Your task to perform on an android device: Go to calendar. Show me events next week Image 0: 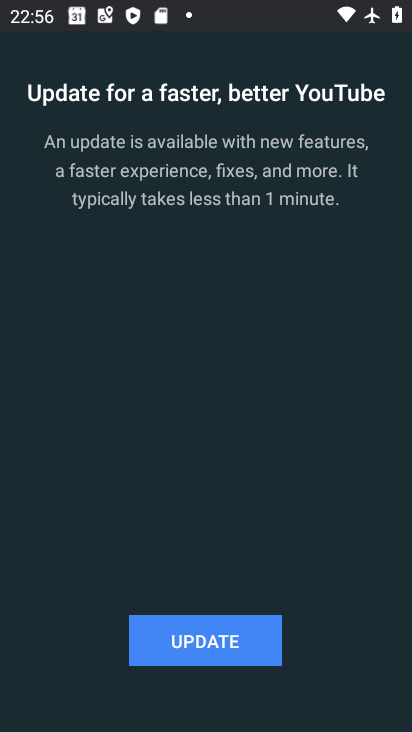
Step 0: press home button
Your task to perform on an android device: Go to calendar. Show me events next week Image 1: 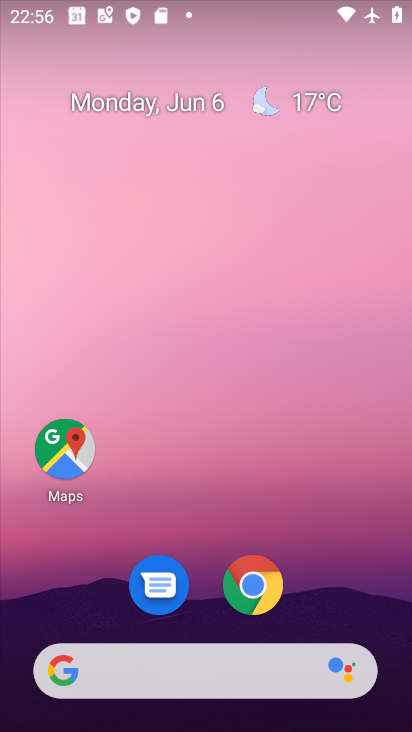
Step 1: drag from (198, 493) to (244, 22)
Your task to perform on an android device: Go to calendar. Show me events next week Image 2: 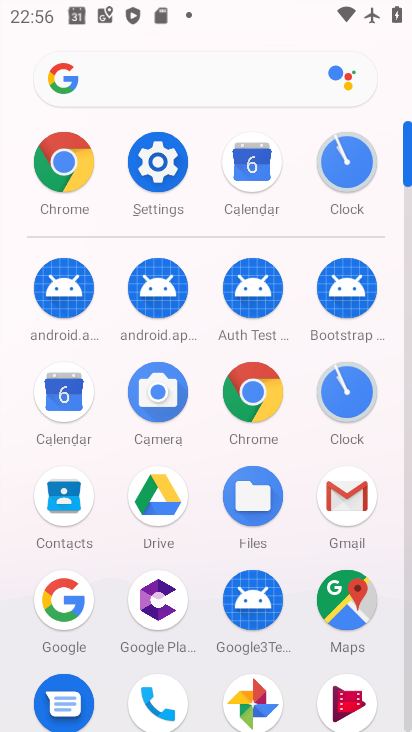
Step 2: click (249, 158)
Your task to perform on an android device: Go to calendar. Show me events next week Image 3: 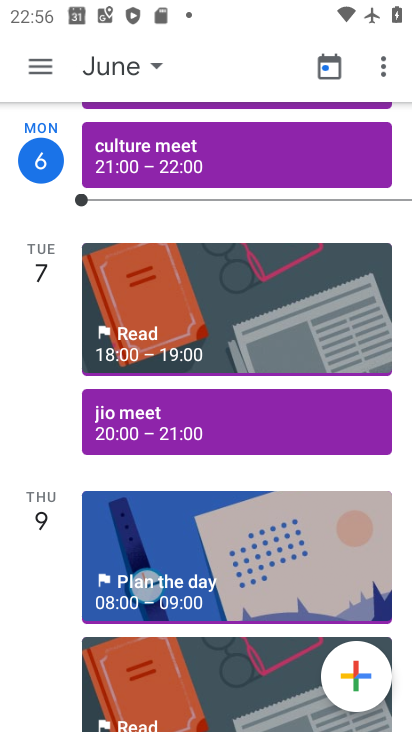
Step 3: click (43, 60)
Your task to perform on an android device: Go to calendar. Show me events next week Image 4: 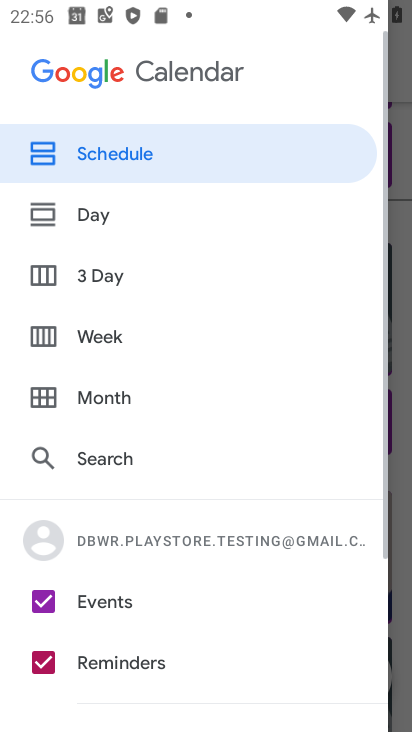
Step 4: click (46, 341)
Your task to perform on an android device: Go to calendar. Show me events next week Image 5: 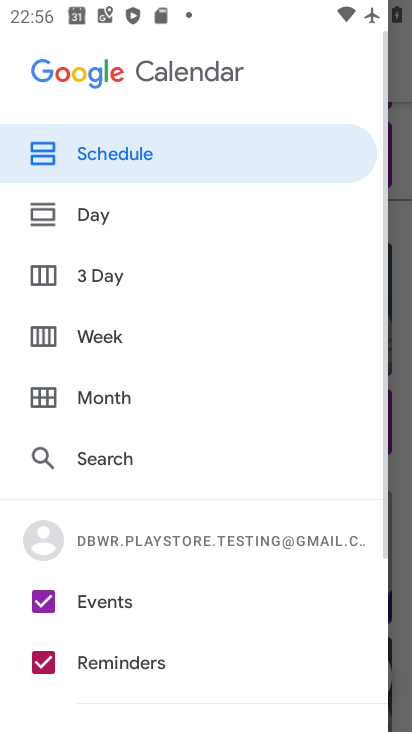
Step 5: click (39, 334)
Your task to perform on an android device: Go to calendar. Show me events next week Image 6: 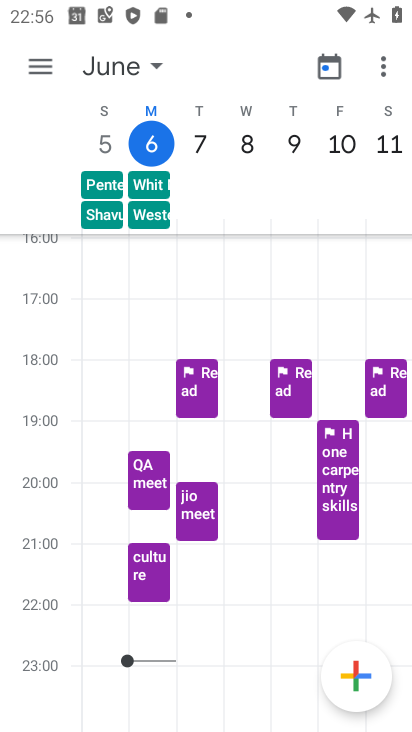
Step 6: task complete